Your task to perform on an android device: Go to Yahoo.com Image 0: 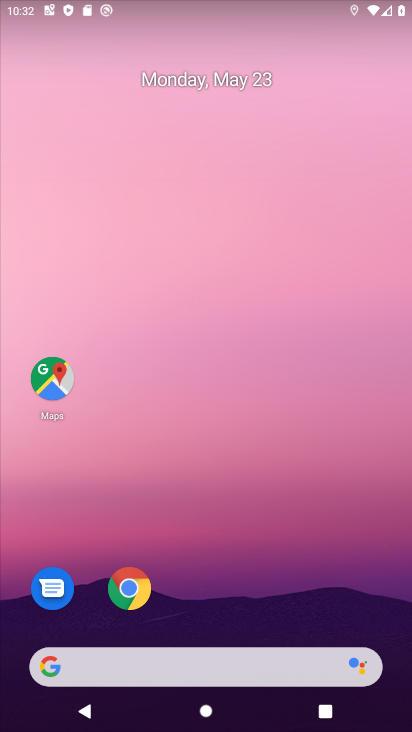
Step 0: click (130, 592)
Your task to perform on an android device: Go to Yahoo.com Image 1: 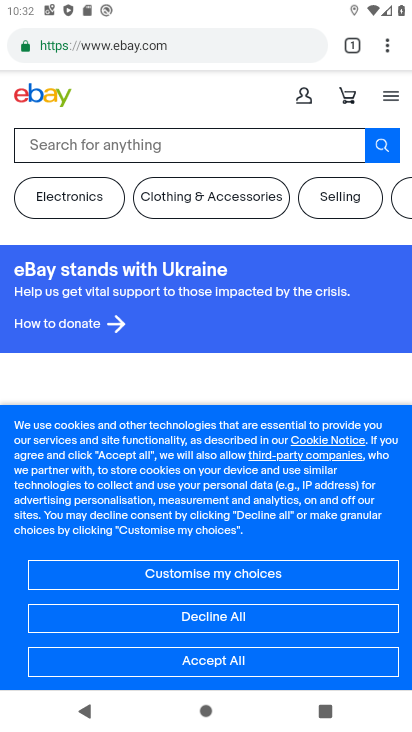
Step 1: click (206, 30)
Your task to perform on an android device: Go to Yahoo.com Image 2: 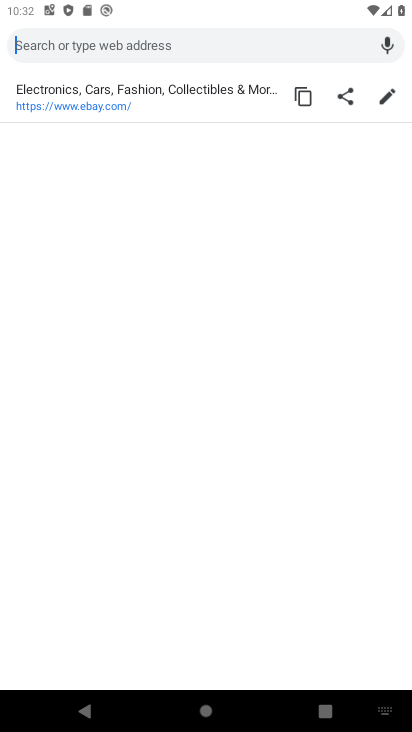
Step 2: type "yahoo.com"
Your task to perform on an android device: Go to Yahoo.com Image 3: 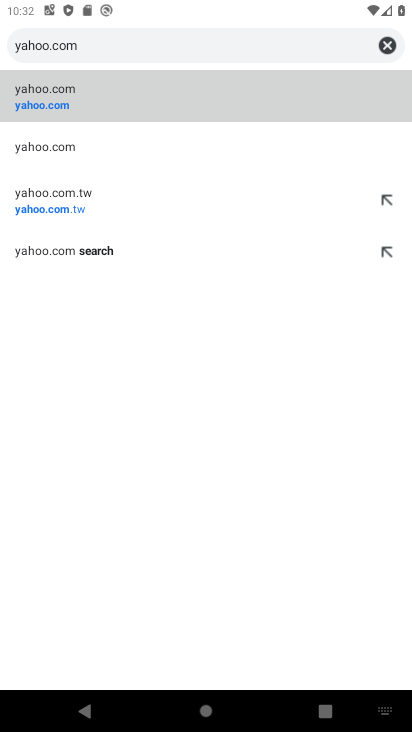
Step 3: click (50, 108)
Your task to perform on an android device: Go to Yahoo.com Image 4: 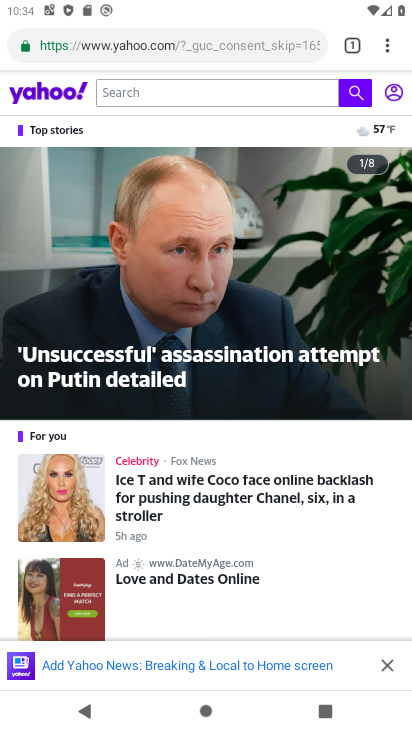
Step 4: task complete